Your task to perform on an android device: Open notification settings Image 0: 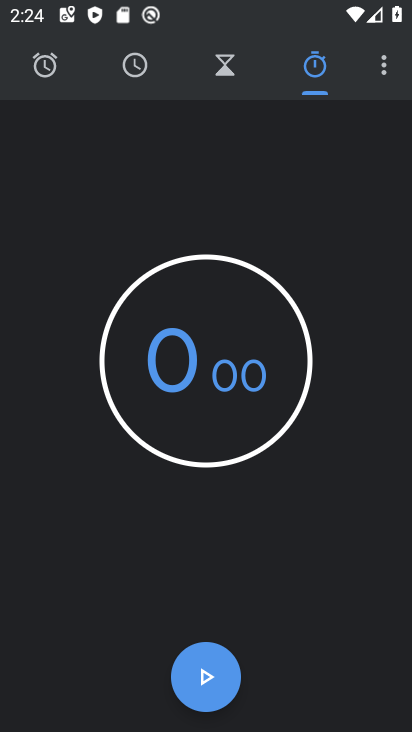
Step 0: press home button
Your task to perform on an android device: Open notification settings Image 1: 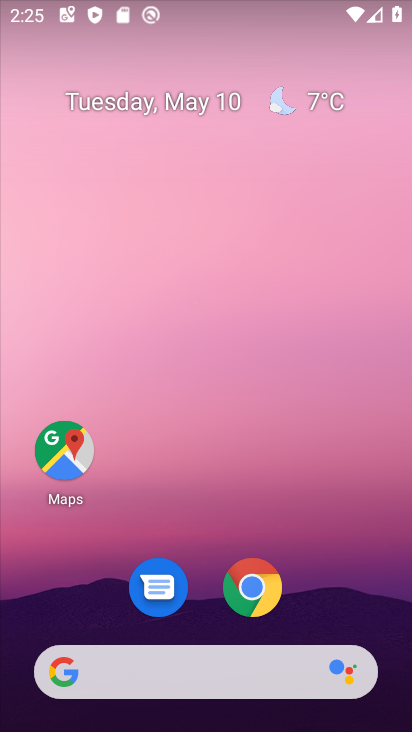
Step 1: drag from (343, 600) to (280, 6)
Your task to perform on an android device: Open notification settings Image 2: 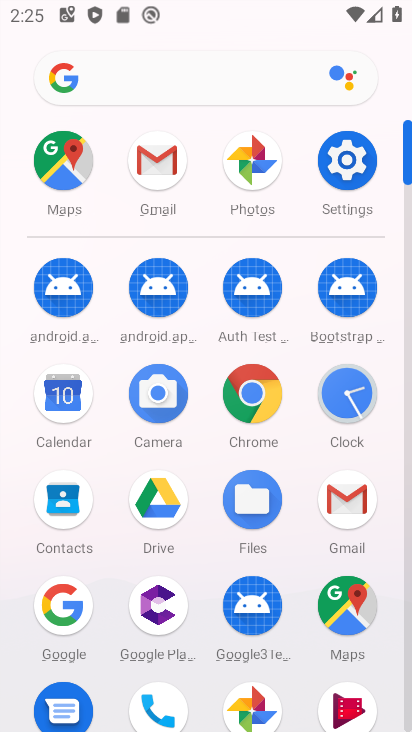
Step 2: drag from (302, 385) to (274, 179)
Your task to perform on an android device: Open notification settings Image 3: 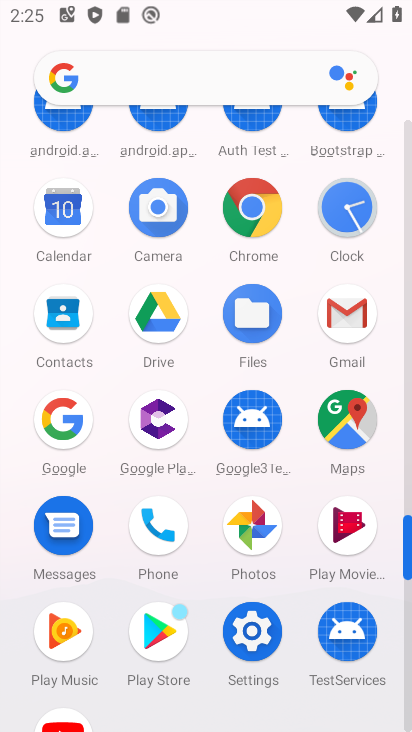
Step 3: drag from (292, 502) to (275, 230)
Your task to perform on an android device: Open notification settings Image 4: 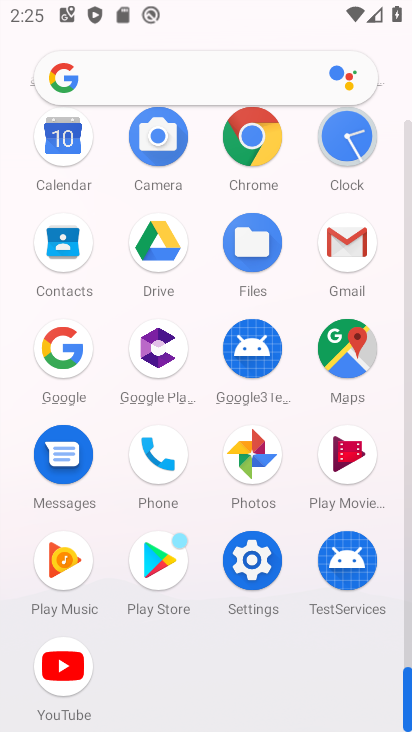
Step 4: click (245, 566)
Your task to perform on an android device: Open notification settings Image 5: 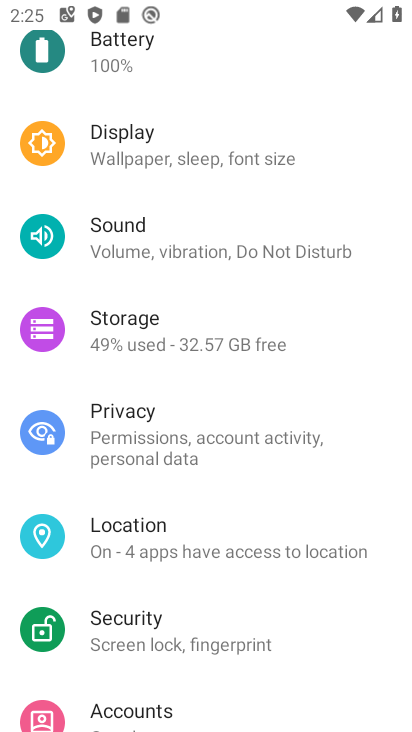
Step 5: drag from (250, 605) to (215, 206)
Your task to perform on an android device: Open notification settings Image 6: 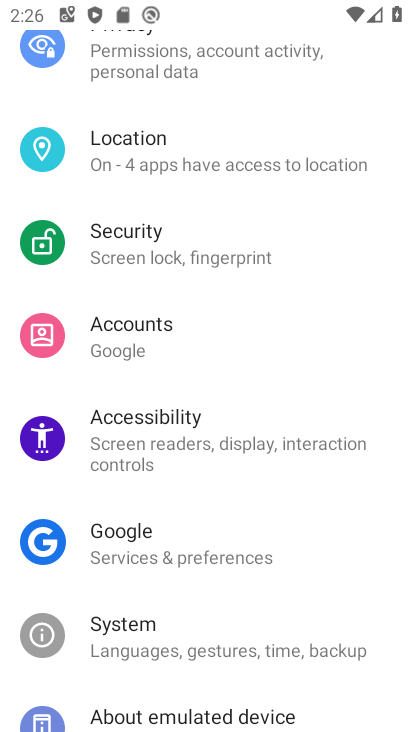
Step 6: drag from (216, 267) to (201, 628)
Your task to perform on an android device: Open notification settings Image 7: 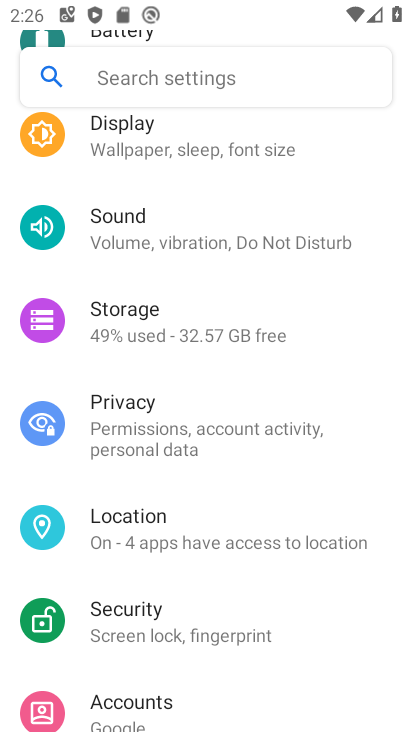
Step 7: drag from (183, 206) to (206, 628)
Your task to perform on an android device: Open notification settings Image 8: 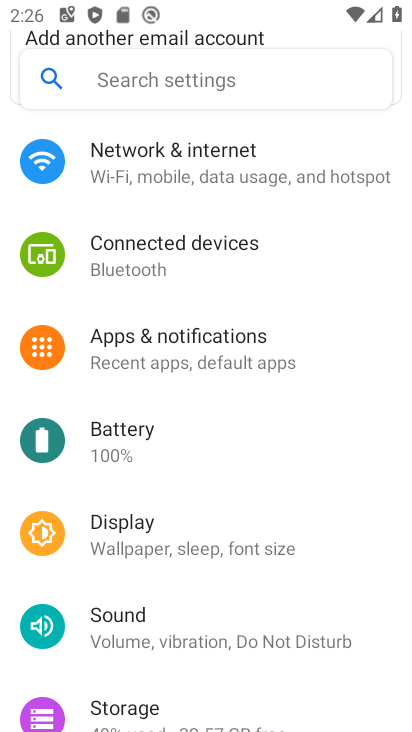
Step 8: click (231, 328)
Your task to perform on an android device: Open notification settings Image 9: 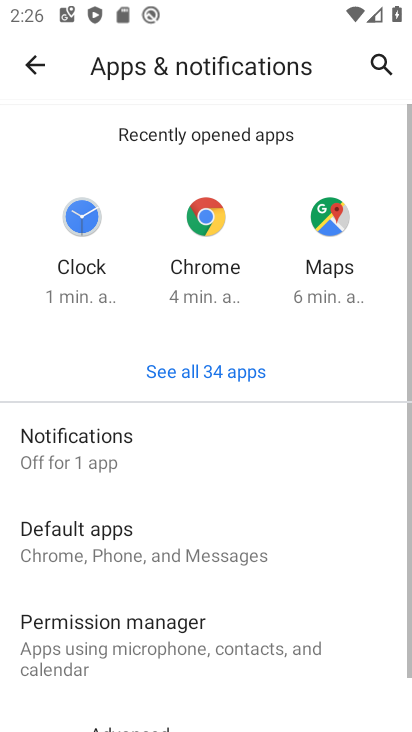
Step 9: click (129, 445)
Your task to perform on an android device: Open notification settings Image 10: 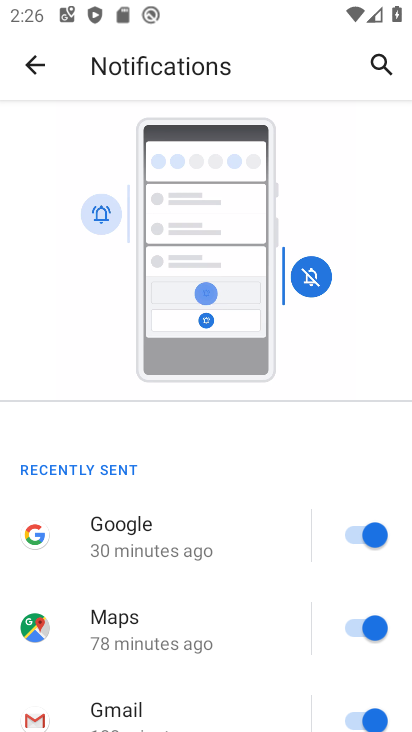
Step 10: task complete